Your task to perform on an android device: Open Google Image 0: 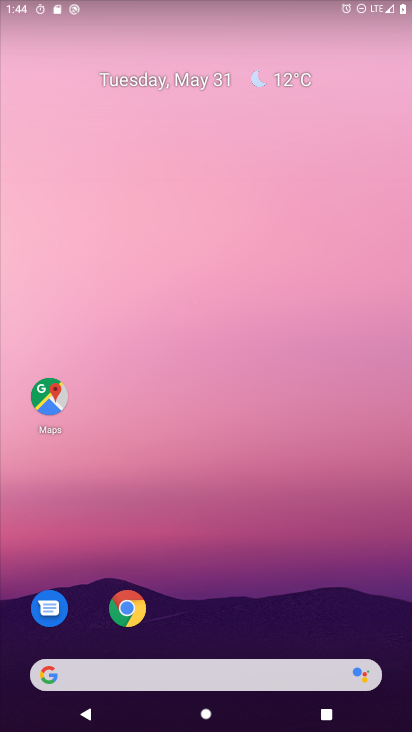
Step 0: drag from (238, 630) to (228, 19)
Your task to perform on an android device: Open Google Image 1: 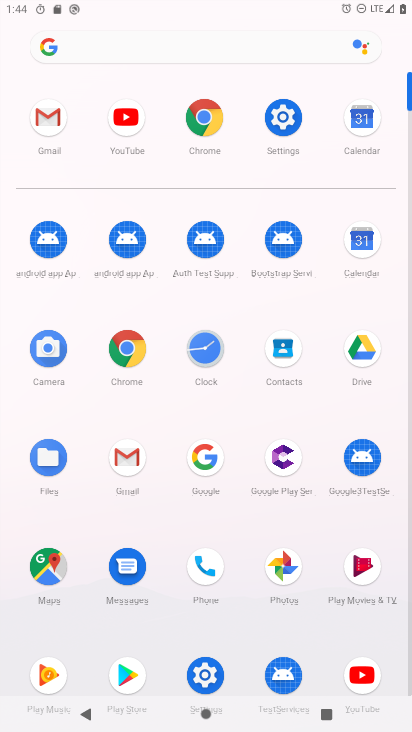
Step 1: click (204, 468)
Your task to perform on an android device: Open Google Image 2: 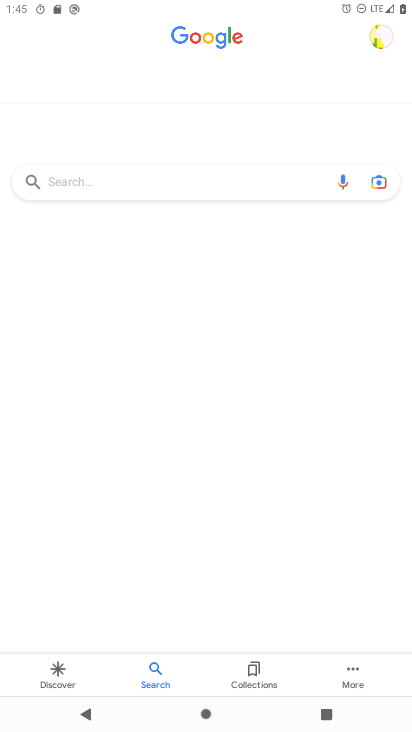
Step 2: task complete